Your task to perform on an android device: Open Google Maps and go to "Timeline" Image 0: 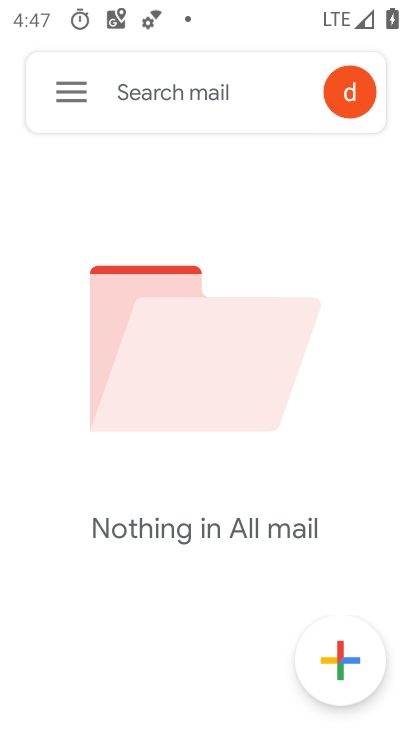
Step 0: press home button
Your task to perform on an android device: Open Google Maps and go to "Timeline" Image 1: 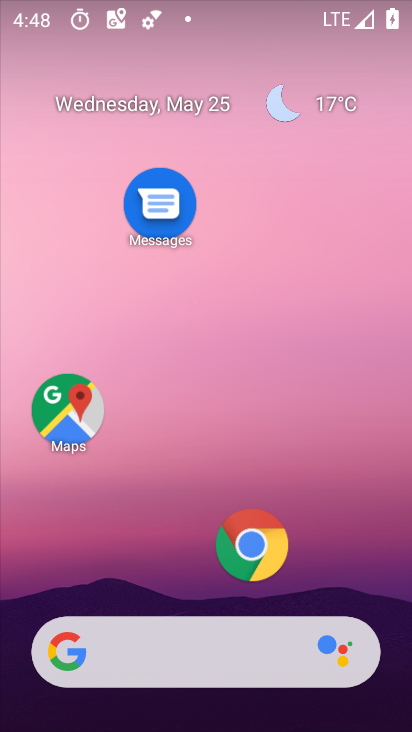
Step 1: click (53, 389)
Your task to perform on an android device: Open Google Maps and go to "Timeline" Image 2: 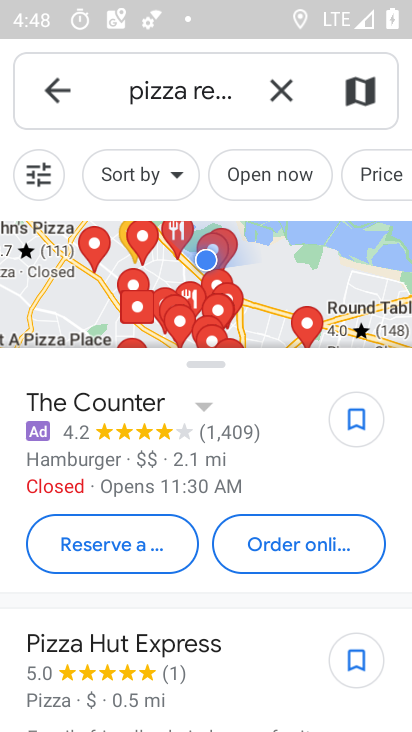
Step 2: click (69, 87)
Your task to perform on an android device: Open Google Maps and go to "Timeline" Image 3: 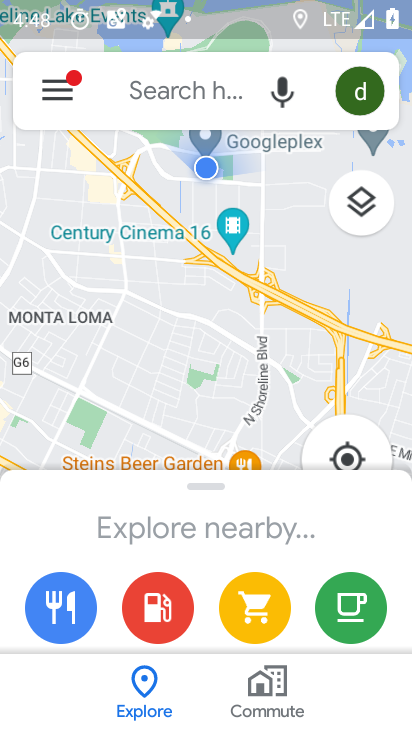
Step 3: click (69, 87)
Your task to perform on an android device: Open Google Maps and go to "Timeline" Image 4: 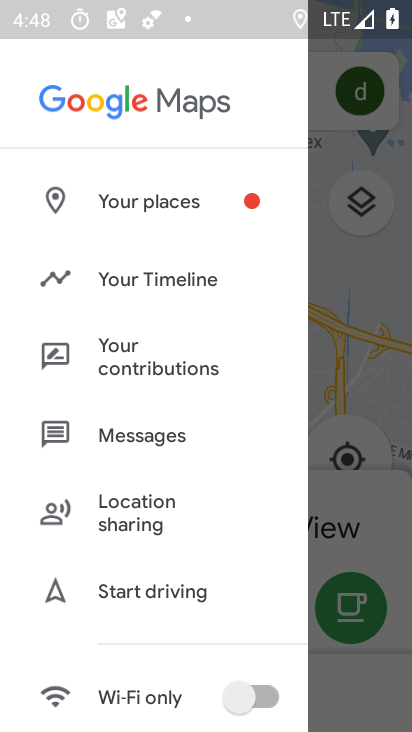
Step 4: click (111, 272)
Your task to perform on an android device: Open Google Maps and go to "Timeline" Image 5: 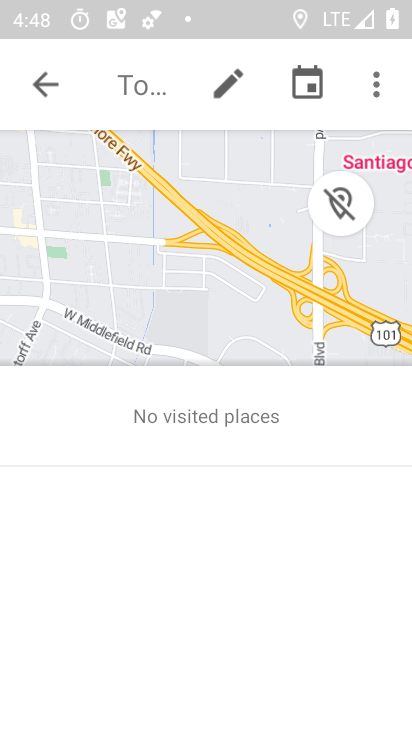
Step 5: task complete